Your task to perform on an android device: Add usb-b to the cart on amazon.com Image 0: 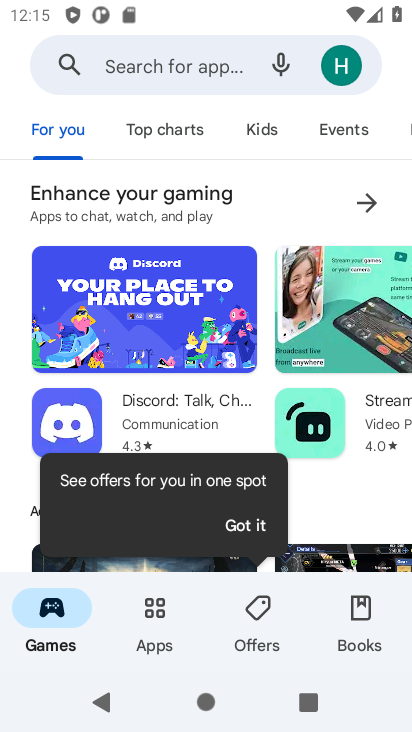
Step 0: press home button
Your task to perform on an android device: Add usb-b to the cart on amazon.com Image 1: 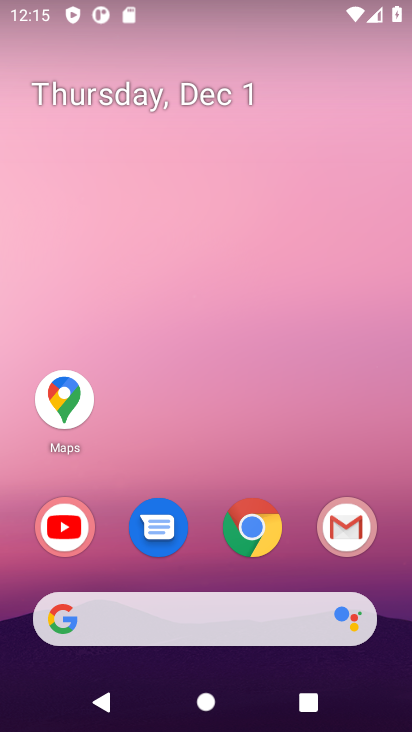
Step 1: click (249, 539)
Your task to perform on an android device: Add usb-b to the cart on amazon.com Image 2: 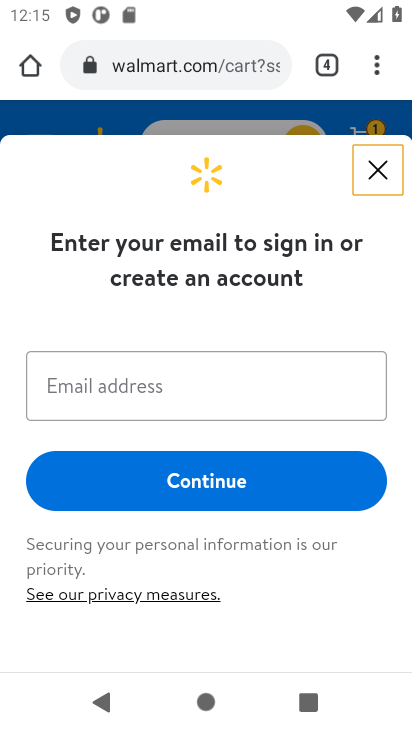
Step 2: click (191, 71)
Your task to perform on an android device: Add usb-b to the cart on amazon.com Image 3: 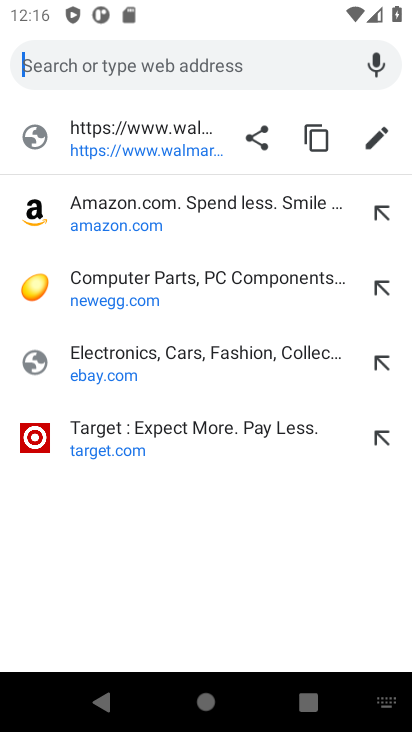
Step 3: click (115, 220)
Your task to perform on an android device: Add usb-b to the cart on amazon.com Image 4: 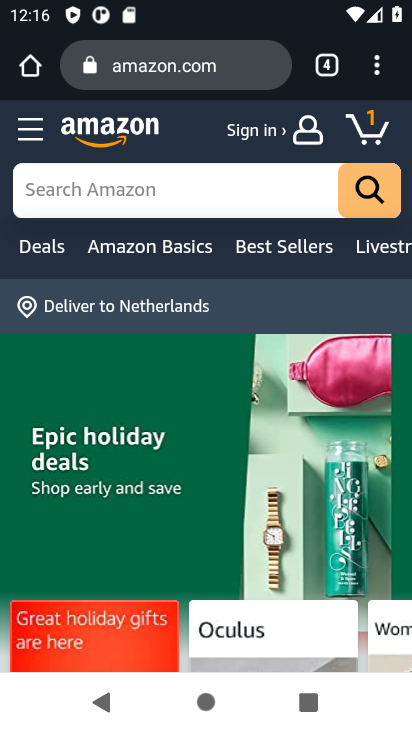
Step 4: click (93, 201)
Your task to perform on an android device: Add usb-b to the cart on amazon.com Image 5: 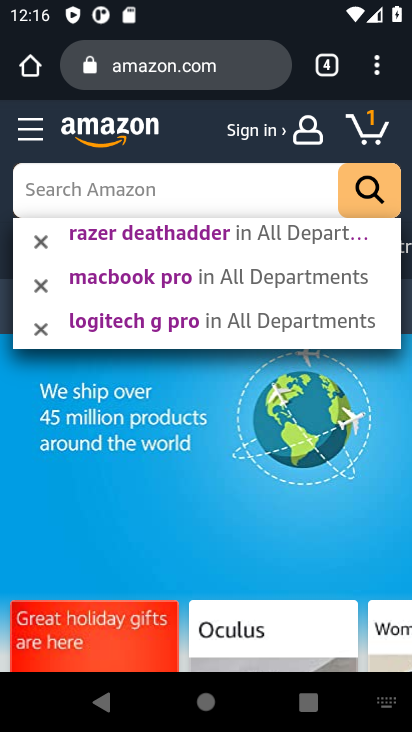
Step 5: type "usb-b"
Your task to perform on an android device: Add usb-b to the cart on amazon.com Image 6: 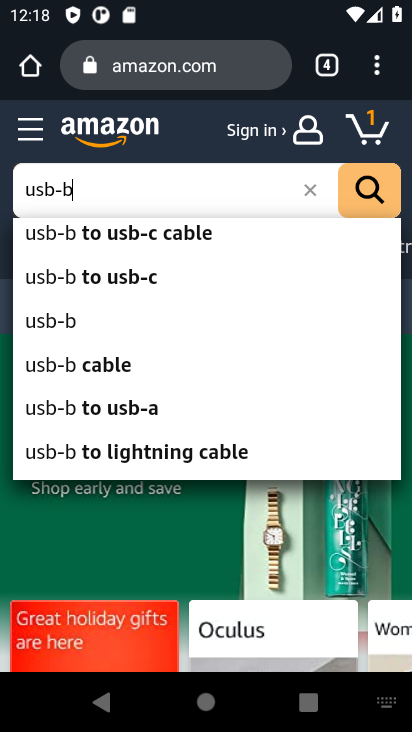
Step 6: click (63, 319)
Your task to perform on an android device: Add usb-b to the cart on amazon.com Image 7: 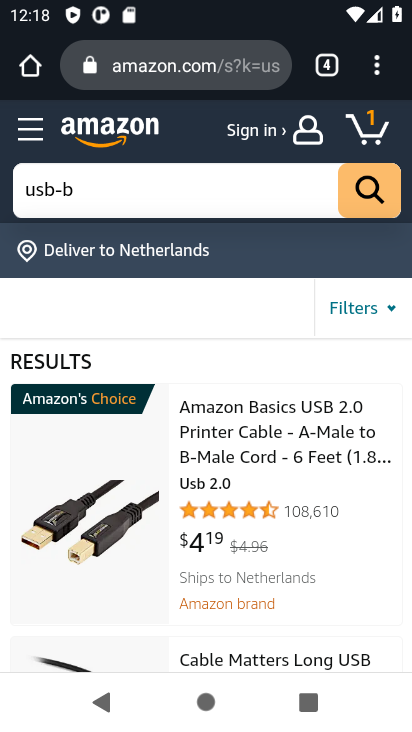
Step 7: drag from (147, 527) to (160, 291)
Your task to perform on an android device: Add usb-b to the cart on amazon.com Image 8: 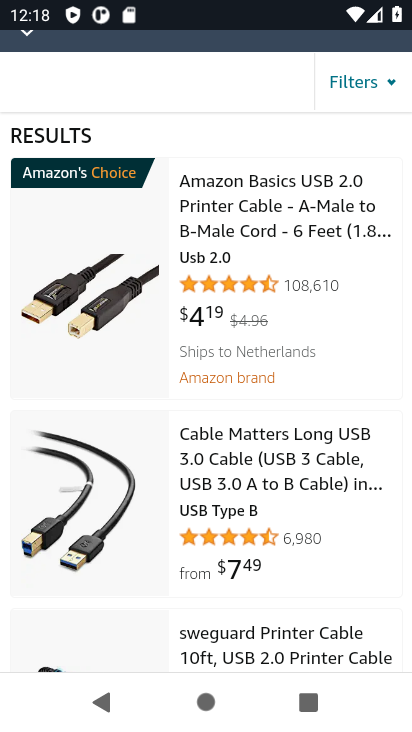
Step 8: drag from (114, 524) to (87, 262)
Your task to perform on an android device: Add usb-b to the cart on amazon.com Image 9: 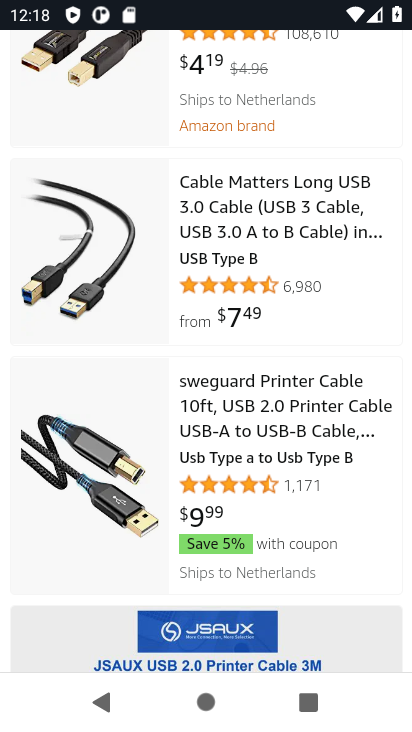
Step 9: click (242, 424)
Your task to perform on an android device: Add usb-b to the cart on amazon.com Image 10: 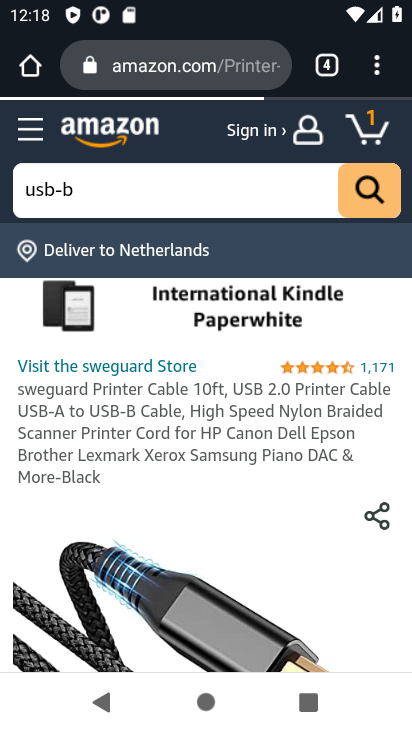
Step 10: drag from (179, 547) to (177, 178)
Your task to perform on an android device: Add usb-b to the cart on amazon.com Image 11: 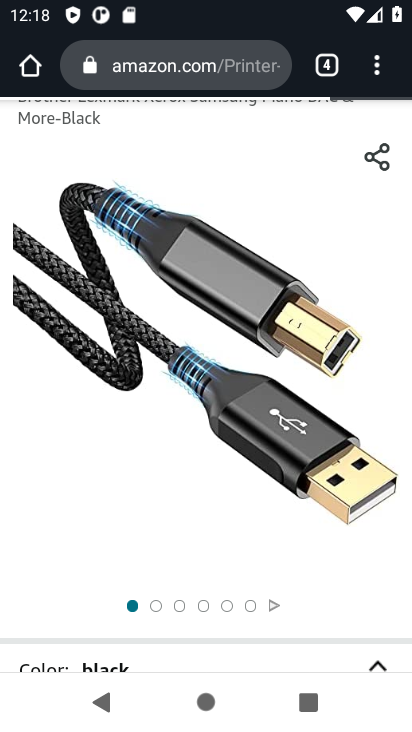
Step 11: drag from (194, 410) to (195, 109)
Your task to perform on an android device: Add usb-b to the cart on amazon.com Image 12: 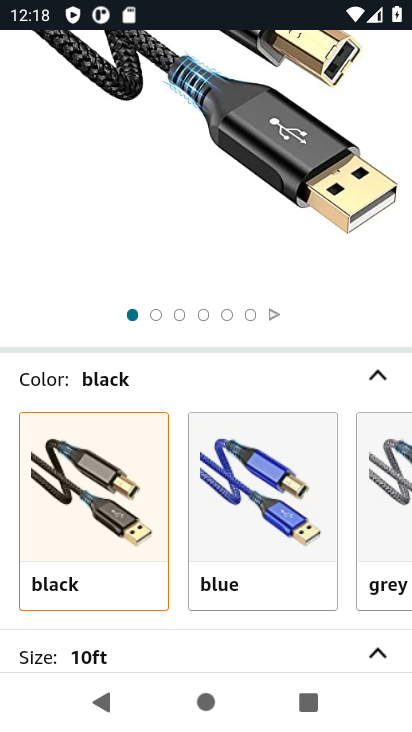
Step 12: drag from (179, 462) to (179, 170)
Your task to perform on an android device: Add usb-b to the cart on amazon.com Image 13: 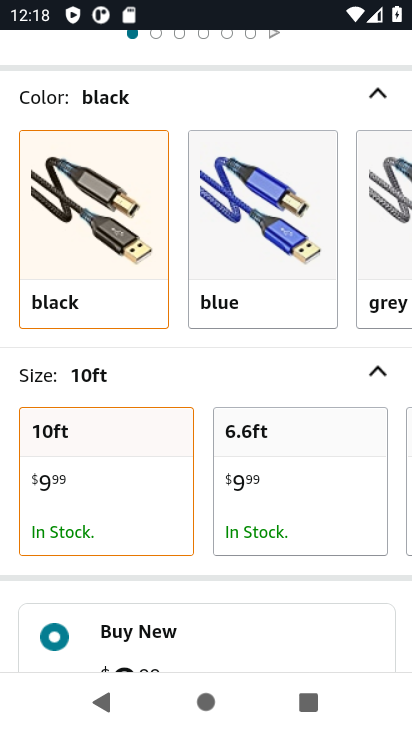
Step 13: drag from (182, 483) to (185, 138)
Your task to perform on an android device: Add usb-b to the cart on amazon.com Image 14: 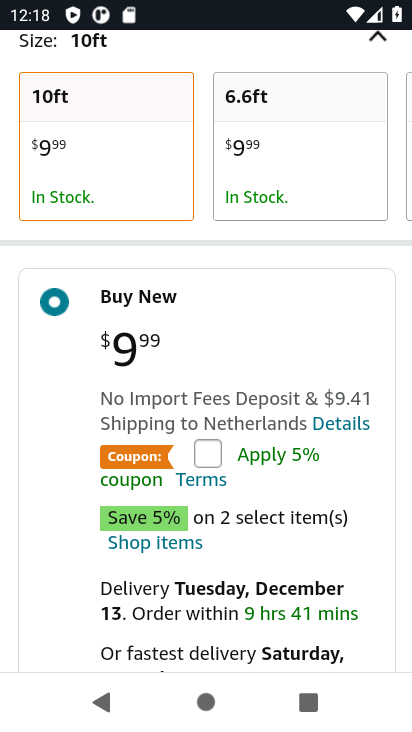
Step 14: drag from (183, 512) to (185, 189)
Your task to perform on an android device: Add usb-b to the cart on amazon.com Image 15: 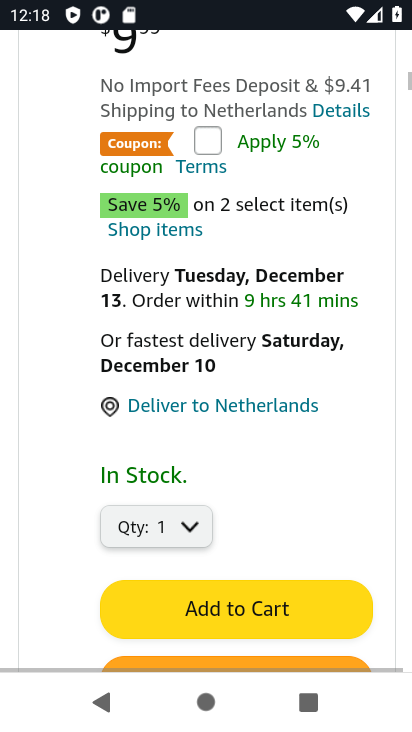
Step 15: drag from (218, 514) to (197, 187)
Your task to perform on an android device: Add usb-b to the cart on amazon.com Image 16: 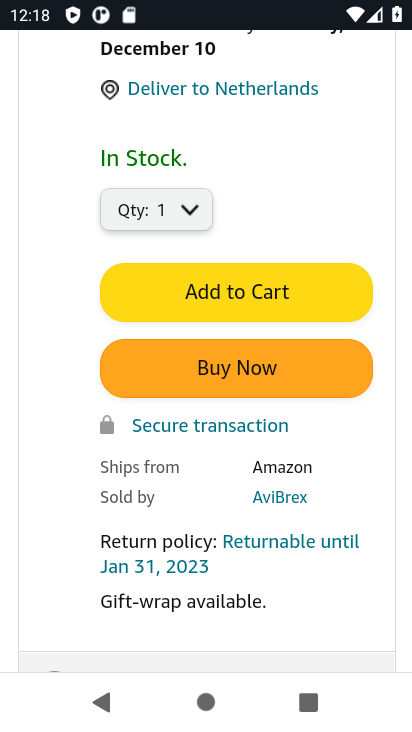
Step 16: click (230, 296)
Your task to perform on an android device: Add usb-b to the cart on amazon.com Image 17: 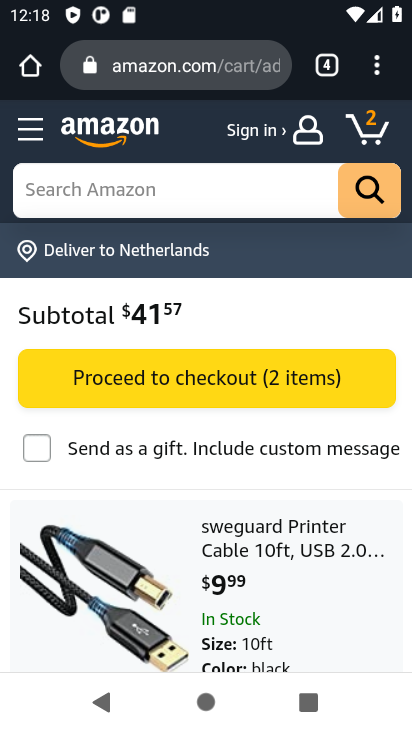
Step 17: task complete